Your task to perform on an android device: Open the map Image 0: 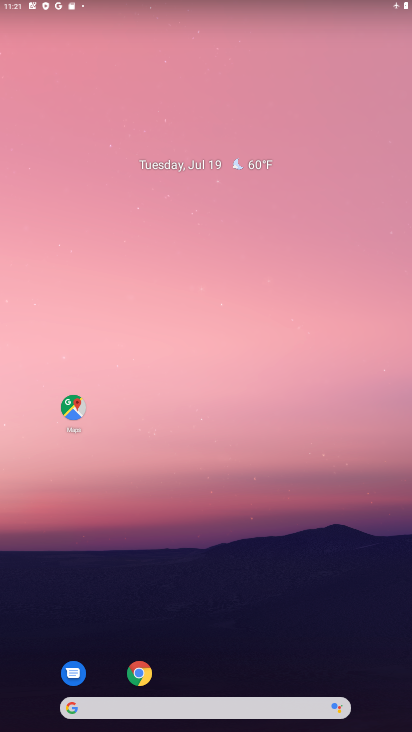
Step 0: click (74, 407)
Your task to perform on an android device: Open the map Image 1: 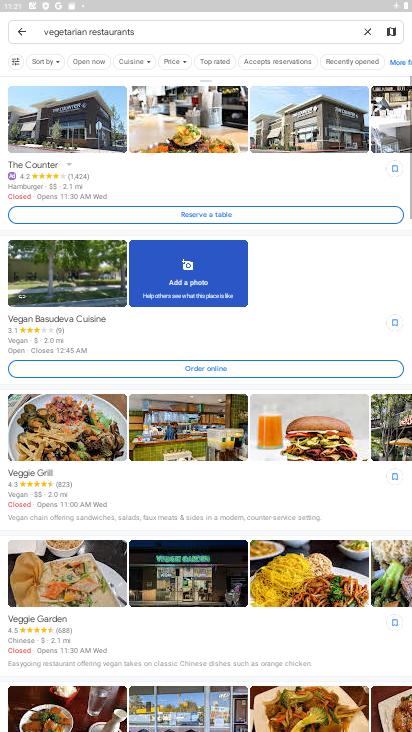
Step 1: click (367, 32)
Your task to perform on an android device: Open the map Image 2: 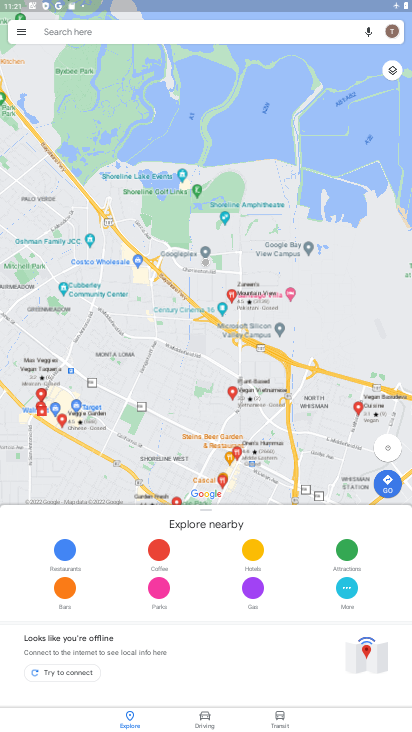
Step 2: task complete